Your task to perform on an android device: Open calendar and show me the first week of next month Image 0: 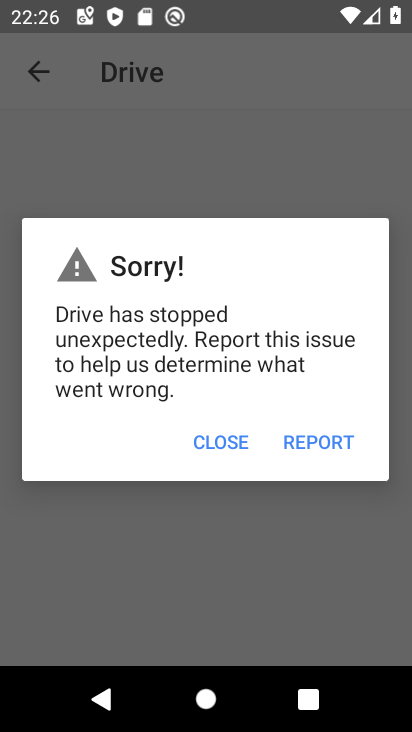
Step 0: press home button
Your task to perform on an android device: Open calendar and show me the first week of next month Image 1: 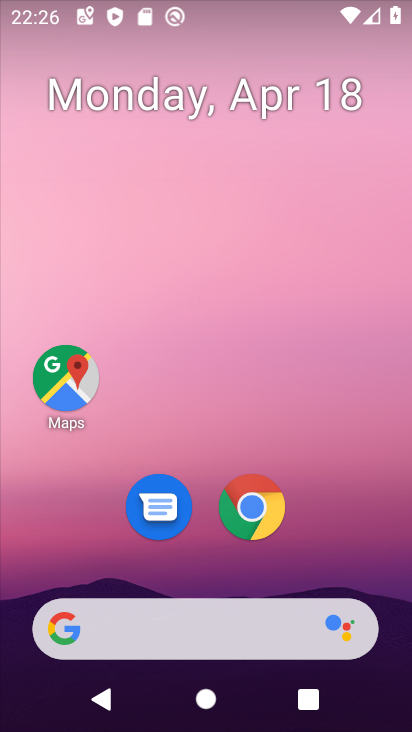
Step 1: drag from (351, 542) to (352, 91)
Your task to perform on an android device: Open calendar and show me the first week of next month Image 2: 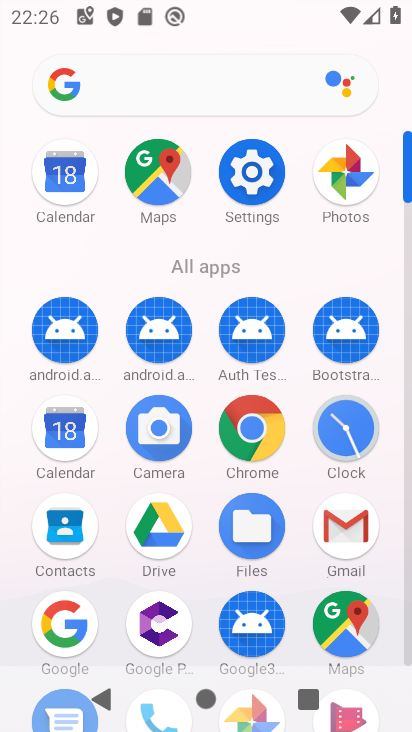
Step 2: click (63, 179)
Your task to perform on an android device: Open calendar and show me the first week of next month Image 3: 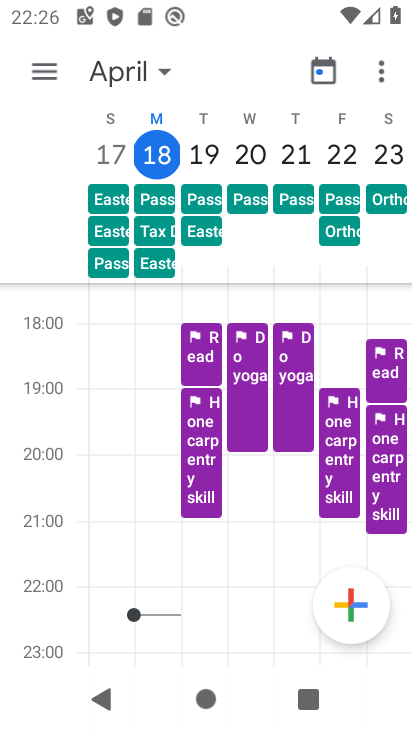
Step 3: task complete